Your task to perform on an android device: Set the phone to "Do not disturb". Image 0: 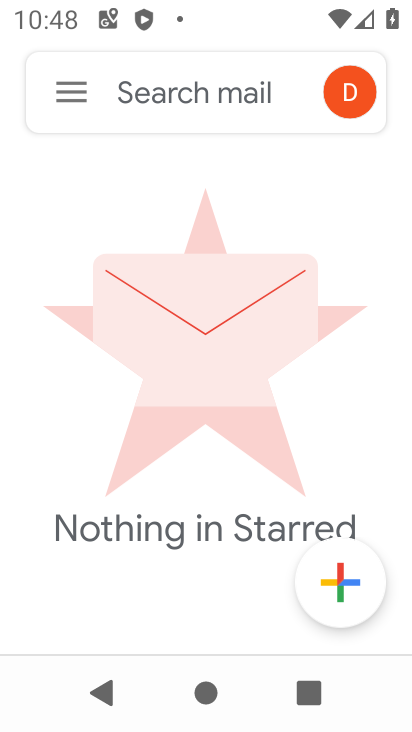
Step 0: click (51, 83)
Your task to perform on an android device: Set the phone to "Do not disturb". Image 1: 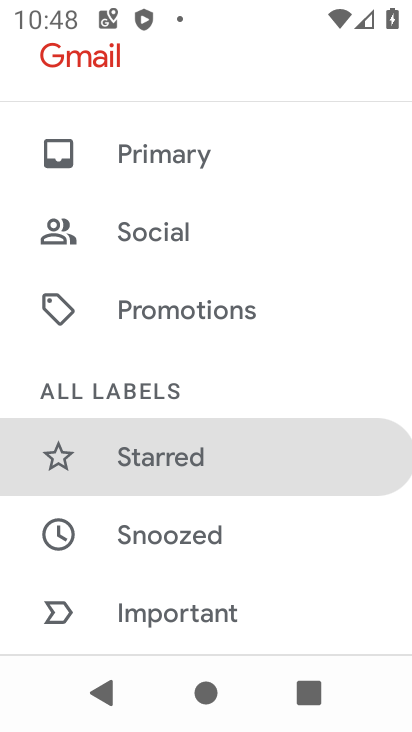
Step 1: press home button
Your task to perform on an android device: Set the phone to "Do not disturb". Image 2: 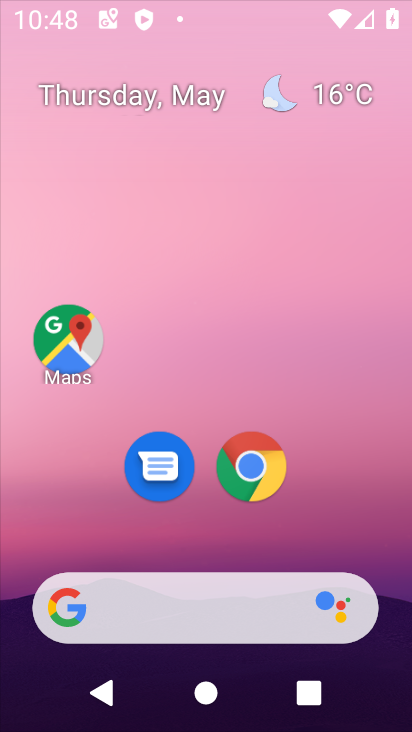
Step 2: drag from (221, 1) to (197, 467)
Your task to perform on an android device: Set the phone to "Do not disturb". Image 3: 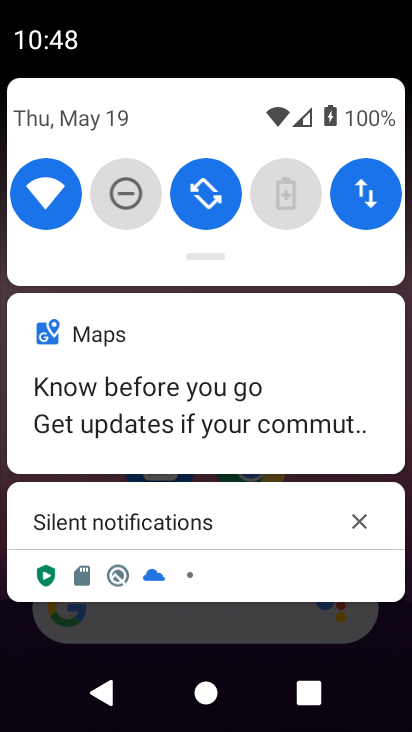
Step 3: click (122, 173)
Your task to perform on an android device: Set the phone to "Do not disturb". Image 4: 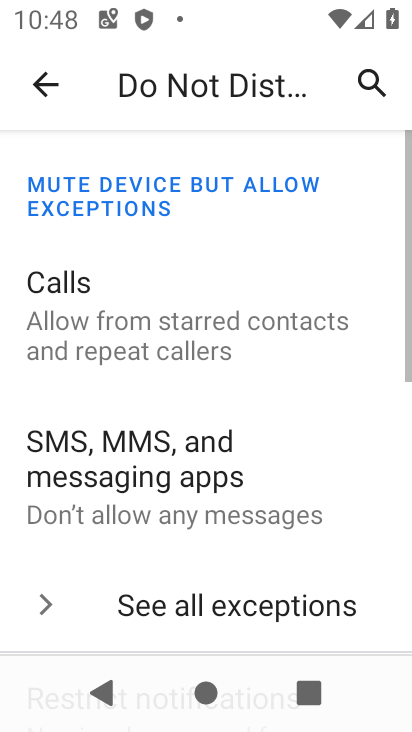
Step 4: drag from (291, 581) to (273, 168)
Your task to perform on an android device: Set the phone to "Do not disturb". Image 5: 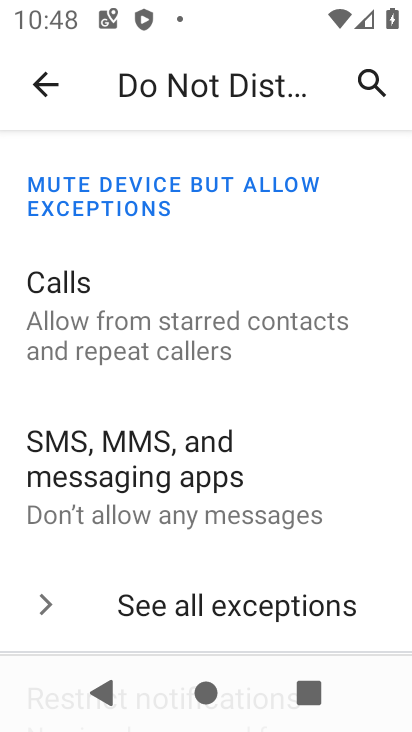
Step 5: drag from (201, 586) to (222, 157)
Your task to perform on an android device: Set the phone to "Do not disturb". Image 6: 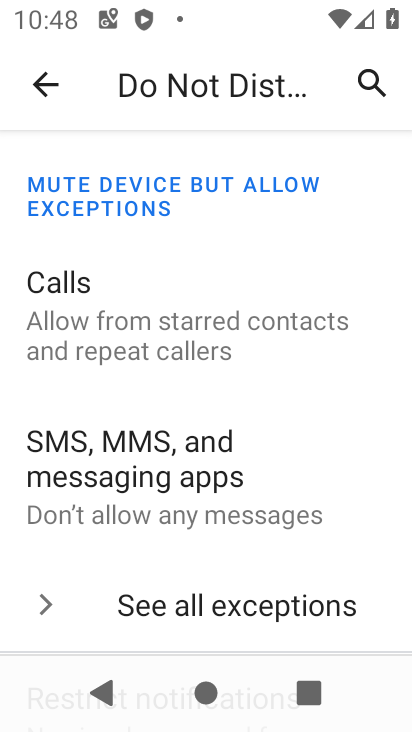
Step 6: drag from (258, 536) to (278, 283)
Your task to perform on an android device: Set the phone to "Do not disturb". Image 7: 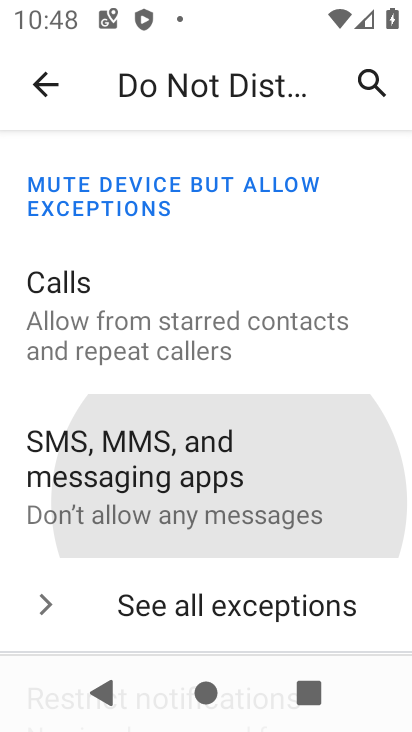
Step 7: drag from (236, 581) to (250, 193)
Your task to perform on an android device: Set the phone to "Do not disturb". Image 8: 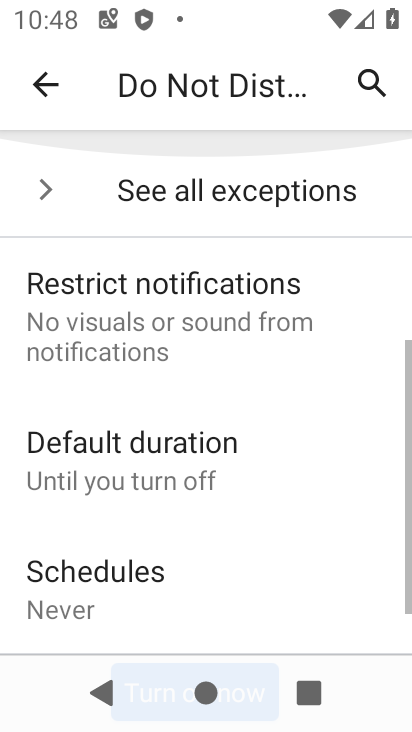
Step 8: drag from (196, 588) to (243, 251)
Your task to perform on an android device: Set the phone to "Do not disturb". Image 9: 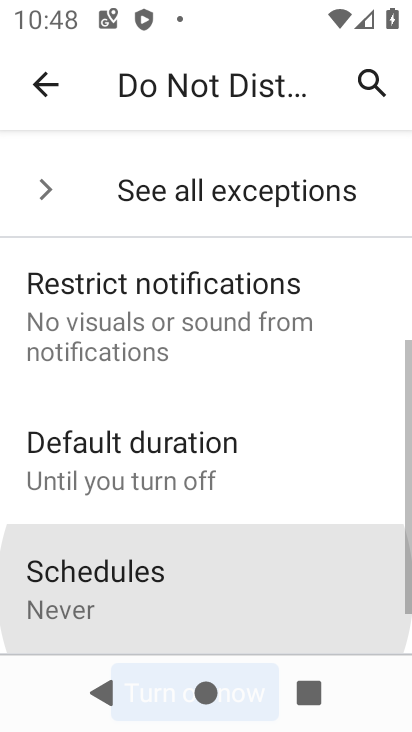
Step 9: drag from (154, 586) to (224, 298)
Your task to perform on an android device: Set the phone to "Do not disturb". Image 10: 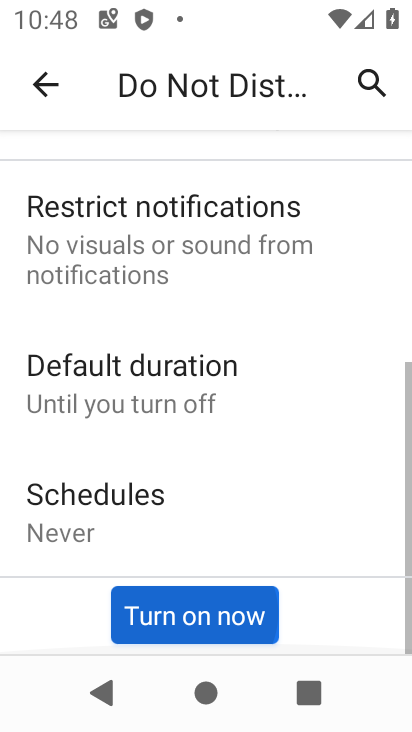
Step 10: drag from (207, 498) to (243, 311)
Your task to perform on an android device: Set the phone to "Do not disturb". Image 11: 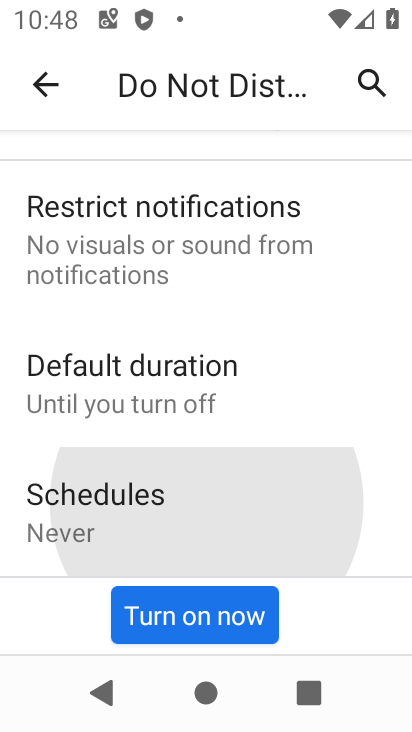
Step 11: drag from (200, 605) to (255, 413)
Your task to perform on an android device: Set the phone to "Do not disturb". Image 12: 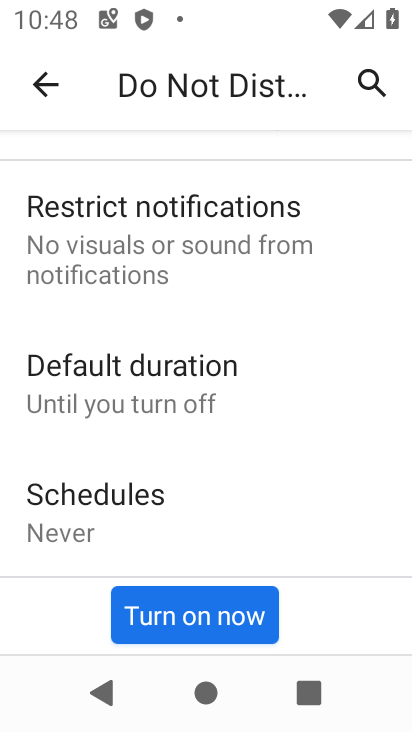
Step 12: click (213, 606)
Your task to perform on an android device: Set the phone to "Do not disturb". Image 13: 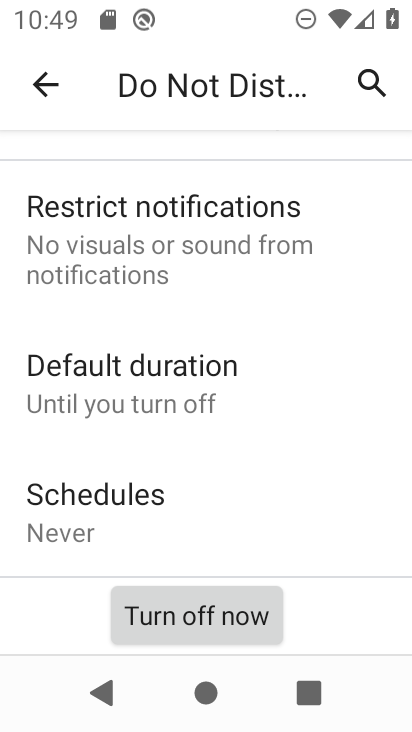
Step 13: task complete